Your task to perform on an android device: turn off smart reply in the gmail app Image 0: 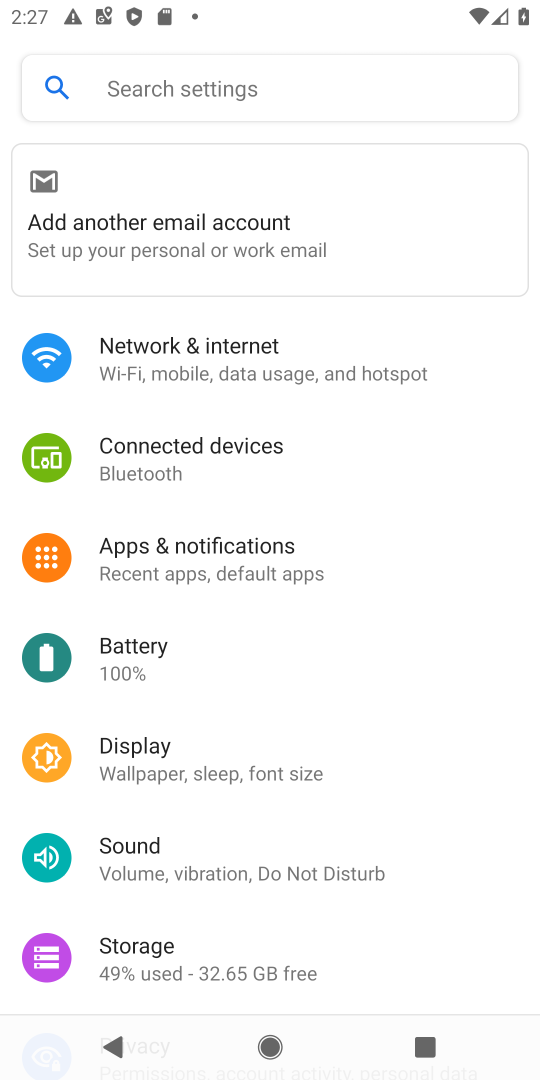
Step 0: press back button
Your task to perform on an android device: turn off smart reply in the gmail app Image 1: 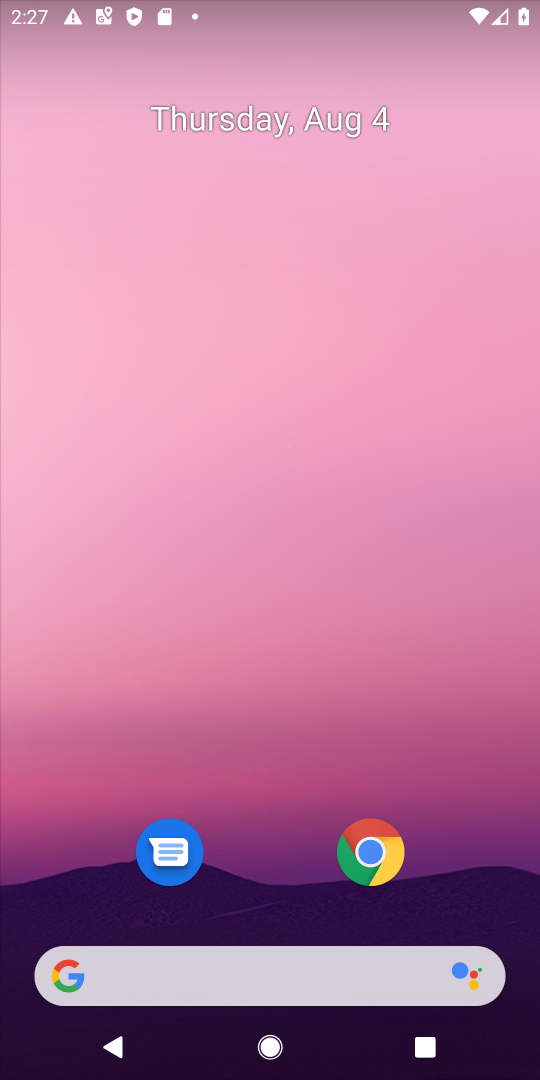
Step 1: drag from (269, 859) to (349, 76)
Your task to perform on an android device: turn off smart reply in the gmail app Image 2: 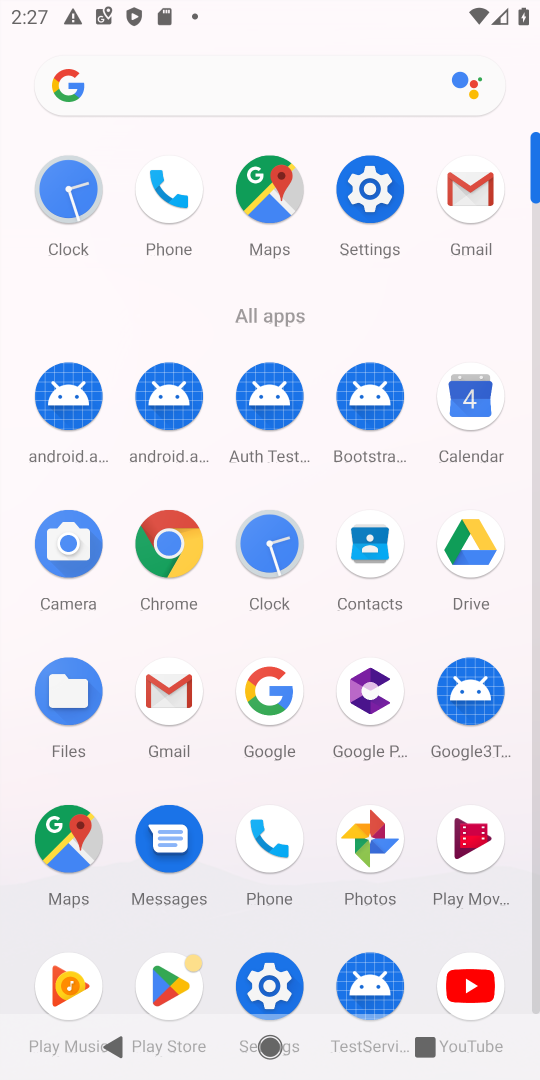
Step 2: click (467, 190)
Your task to perform on an android device: turn off smart reply in the gmail app Image 3: 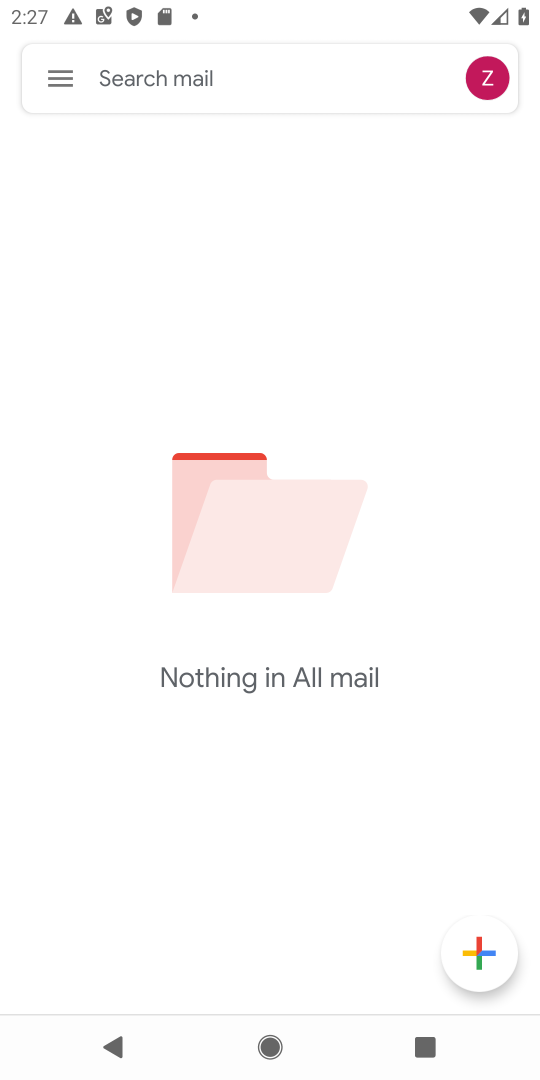
Step 3: click (61, 80)
Your task to perform on an android device: turn off smart reply in the gmail app Image 4: 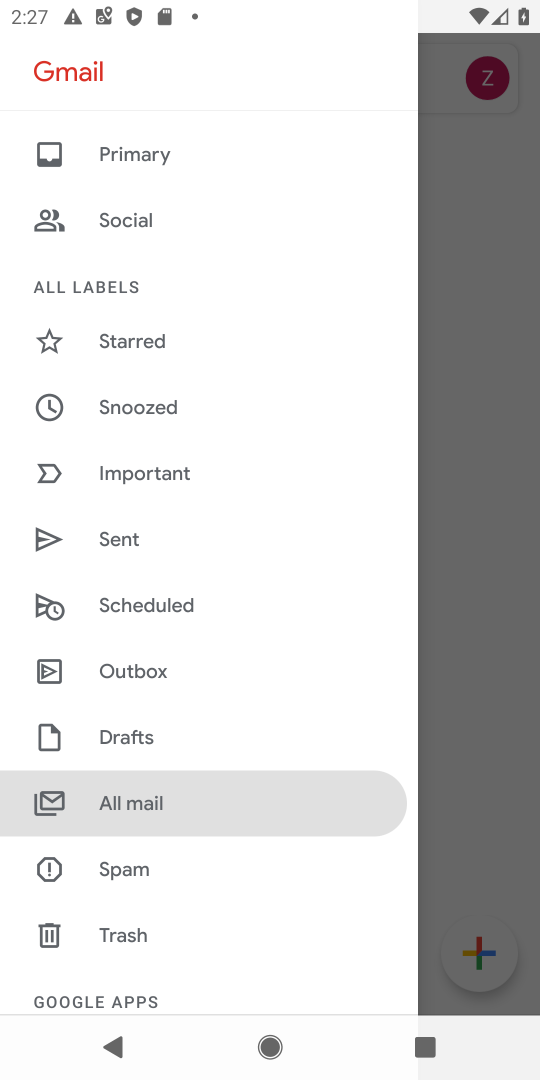
Step 4: drag from (170, 875) to (218, 139)
Your task to perform on an android device: turn off smart reply in the gmail app Image 5: 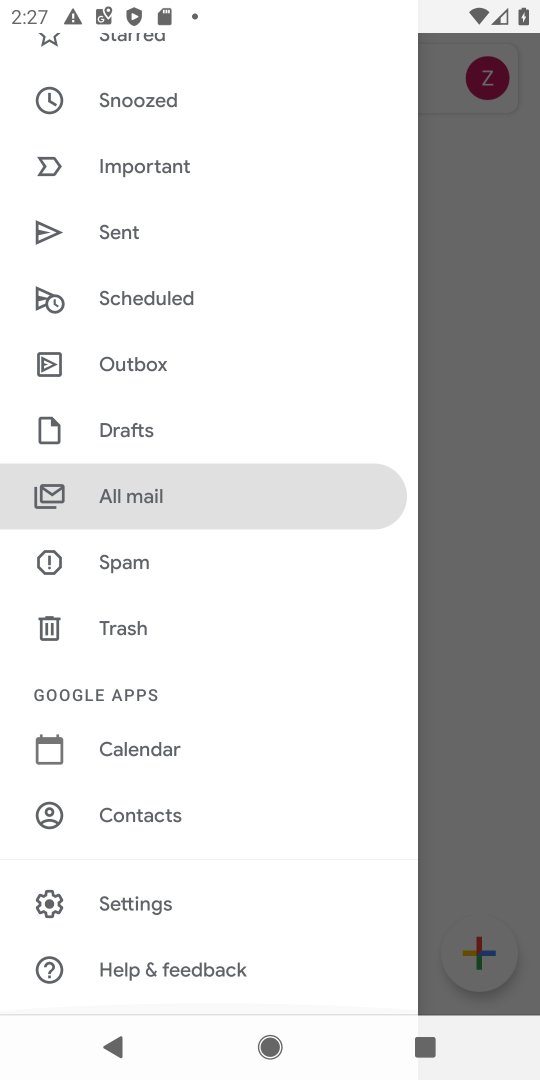
Step 5: click (146, 908)
Your task to perform on an android device: turn off smart reply in the gmail app Image 6: 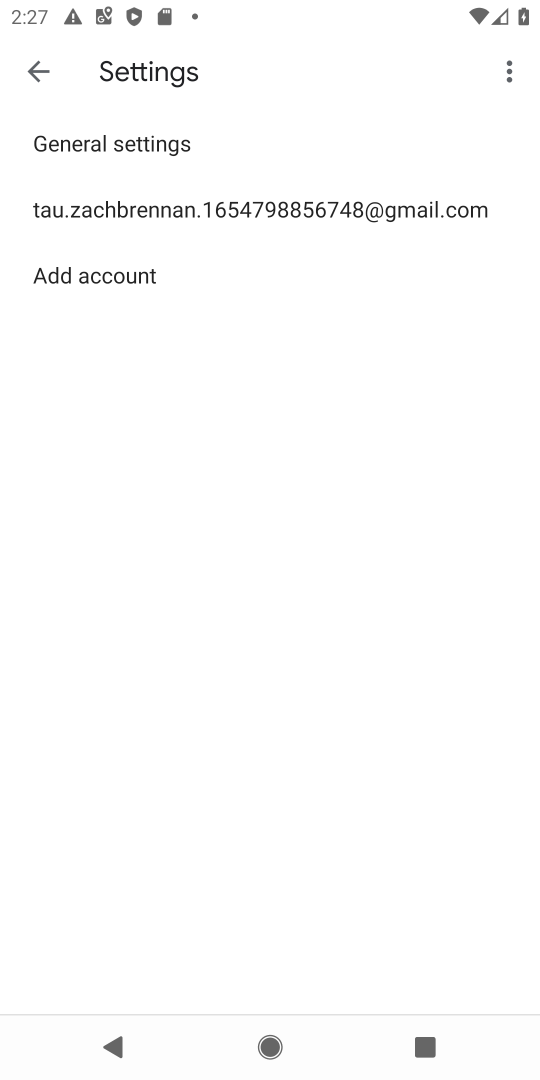
Step 6: click (202, 209)
Your task to perform on an android device: turn off smart reply in the gmail app Image 7: 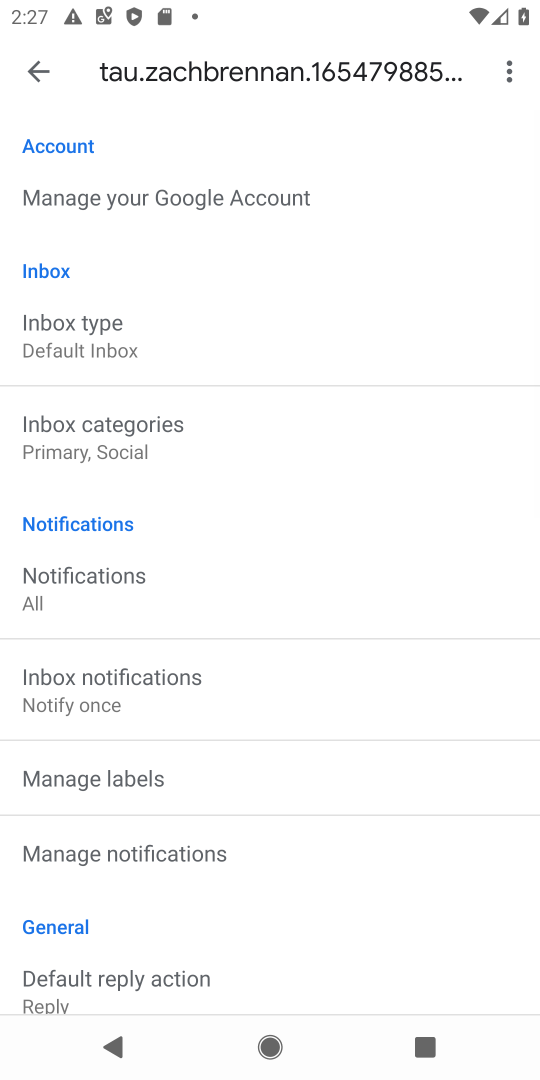
Step 7: drag from (149, 935) to (238, 204)
Your task to perform on an android device: turn off smart reply in the gmail app Image 8: 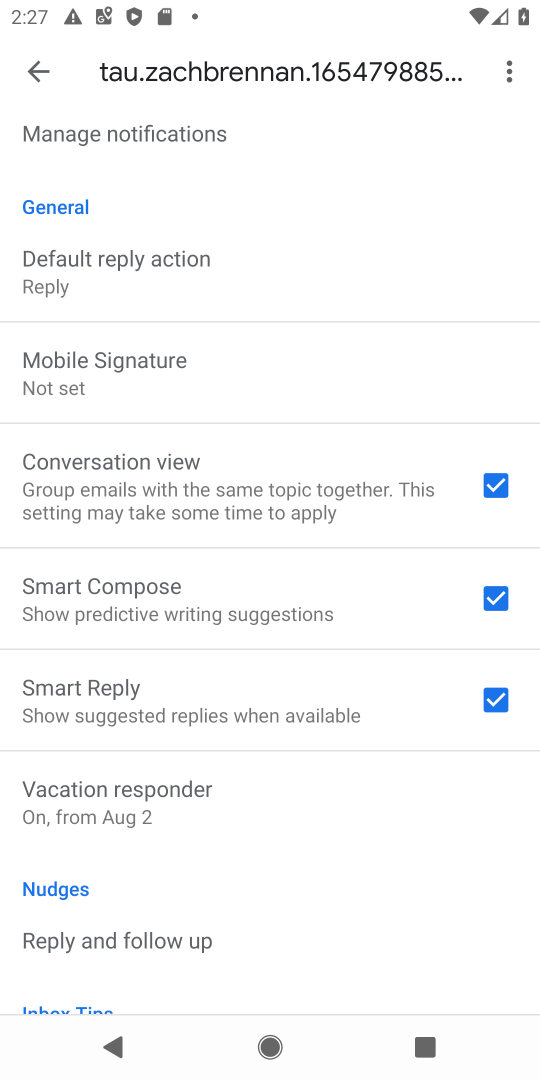
Step 8: click (491, 704)
Your task to perform on an android device: turn off smart reply in the gmail app Image 9: 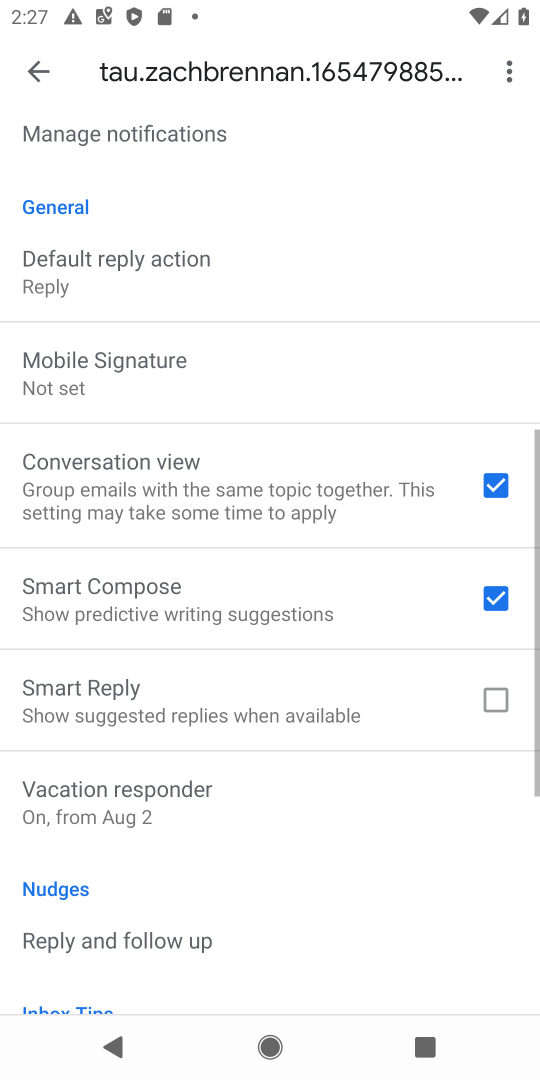
Step 9: task complete